Your task to perform on an android device: Go to battery settings Image 0: 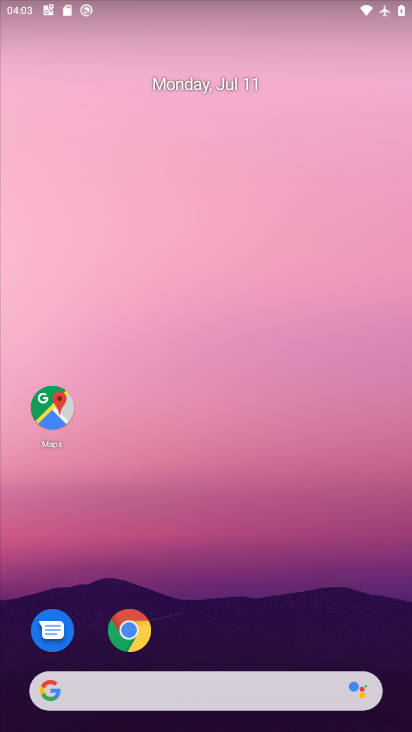
Step 0: drag from (242, 633) to (202, 170)
Your task to perform on an android device: Go to battery settings Image 1: 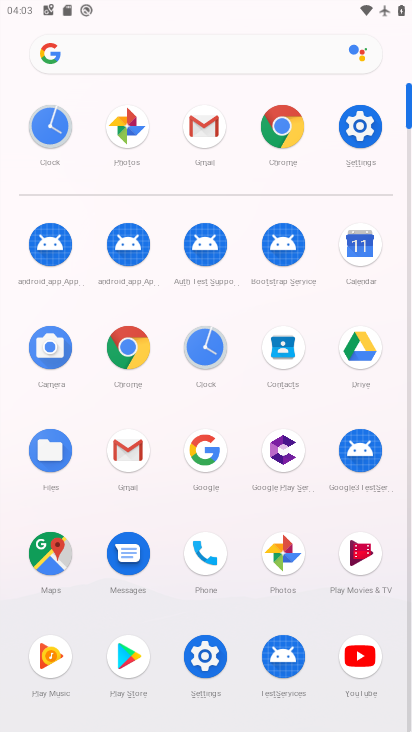
Step 1: click (362, 119)
Your task to perform on an android device: Go to battery settings Image 2: 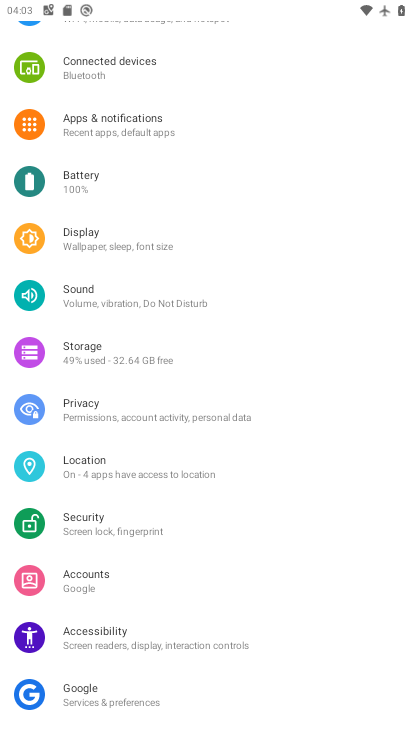
Step 2: click (170, 181)
Your task to perform on an android device: Go to battery settings Image 3: 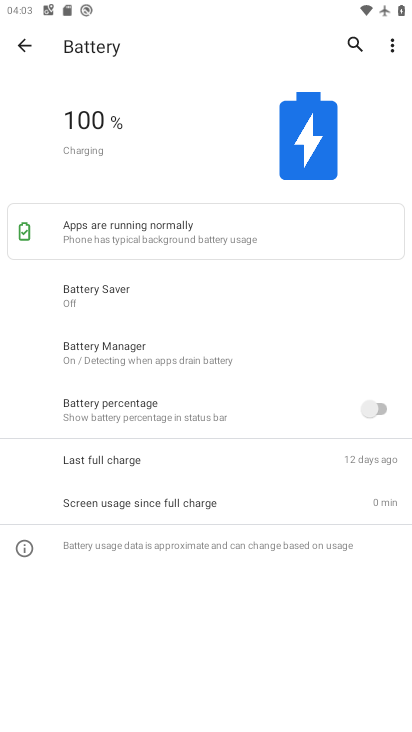
Step 3: task complete